Your task to perform on an android device: turn on the 24-hour format for clock Image 0: 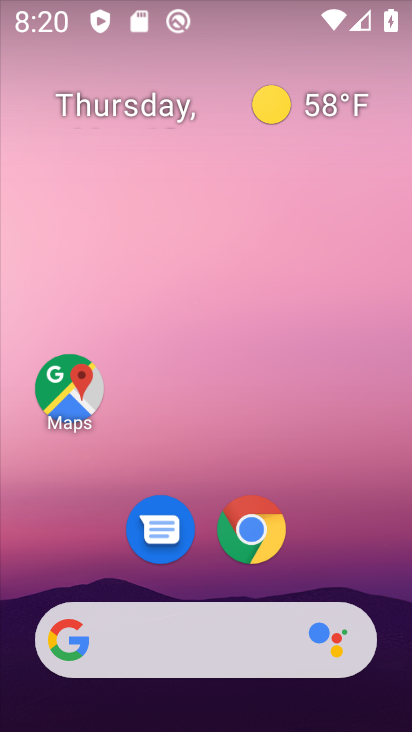
Step 0: drag from (191, 581) to (181, 62)
Your task to perform on an android device: turn on the 24-hour format for clock Image 1: 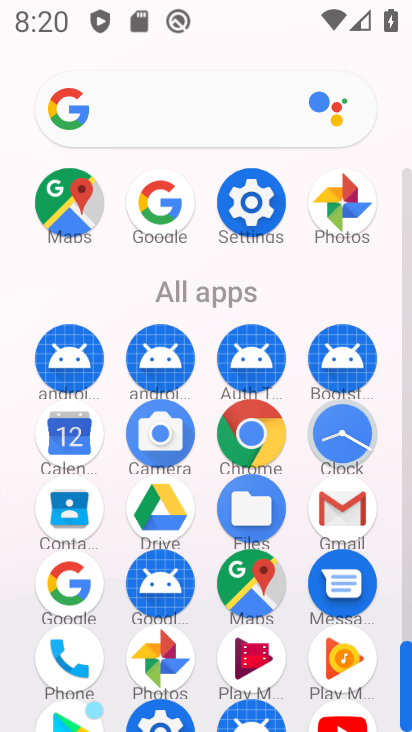
Step 1: click (340, 429)
Your task to perform on an android device: turn on the 24-hour format for clock Image 2: 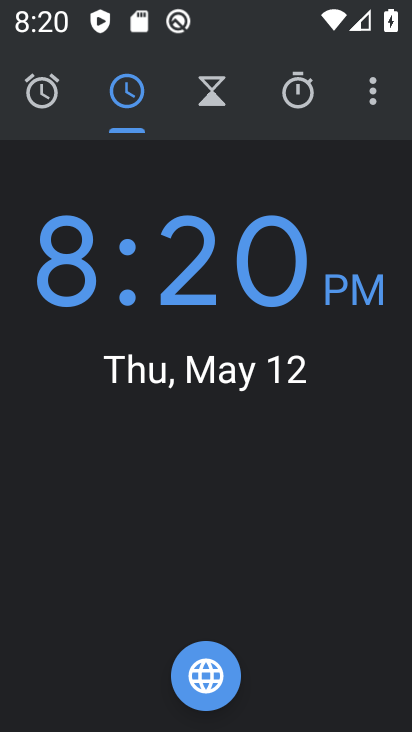
Step 2: click (362, 86)
Your task to perform on an android device: turn on the 24-hour format for clock Image 3: 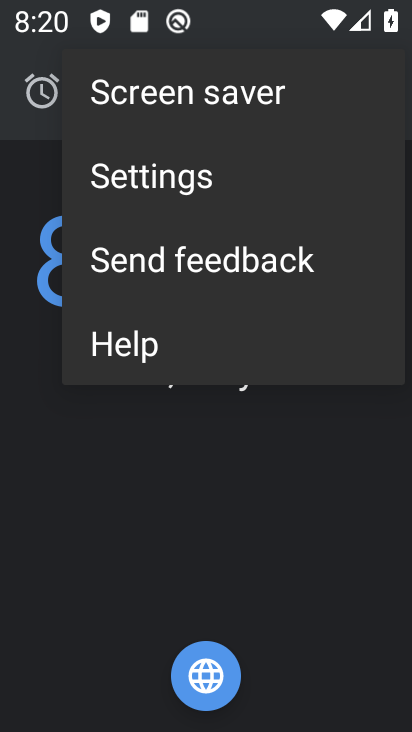
Step 3: click (217, 176)
Your task to perform on an android device: turn on the 24-hour format for clock Image 4: 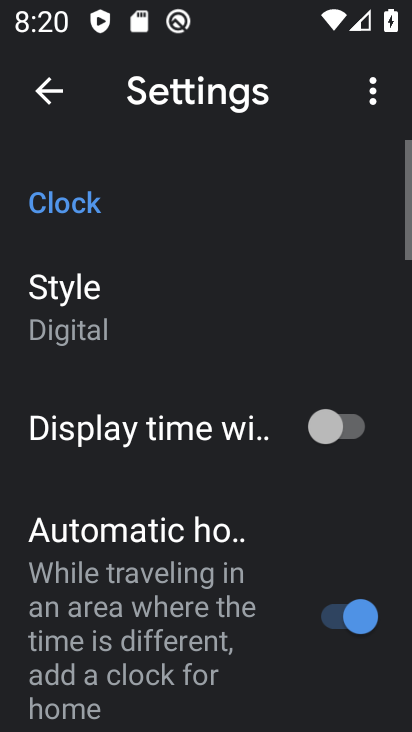
Step 4: drag from (270, 524) to (318, 173)
Your task to perform on an android device: turn on the 24-hour format for clock Image 5: 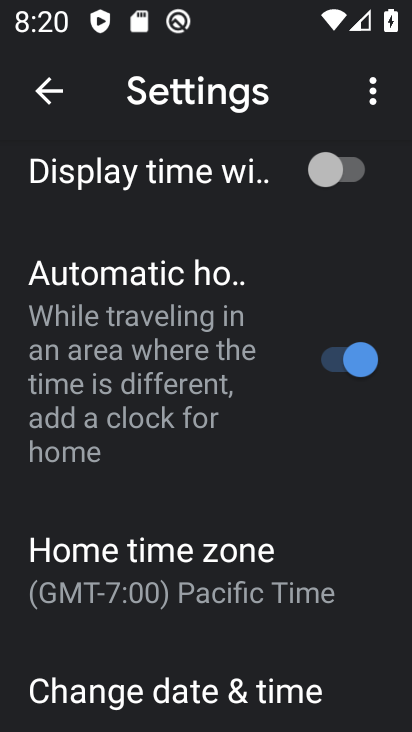
Step 5: click (178, 672)
Your task to perform on an android device: turn on the 24-hour format for clock Image 6: 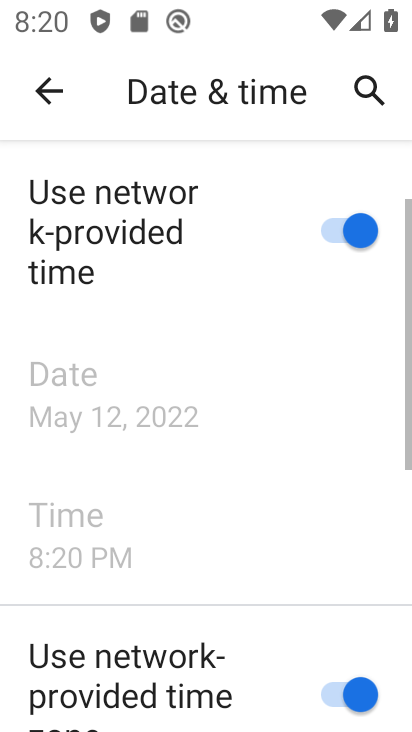
Step 6: drag from (177, 669) to (233, 170)
Your task to perform on an android device: turn on the 24-hour format for clock Image 7: 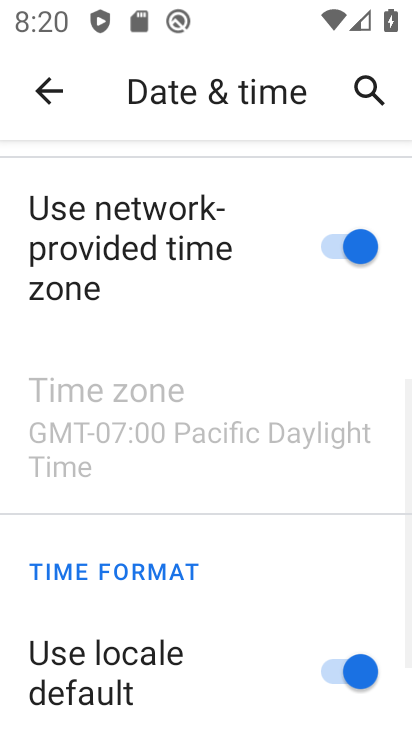
Step 7: drag from (260, 690) to (224, 159)
Your task to perform on an android device: turn on the 24-hour format for clock Image 8: 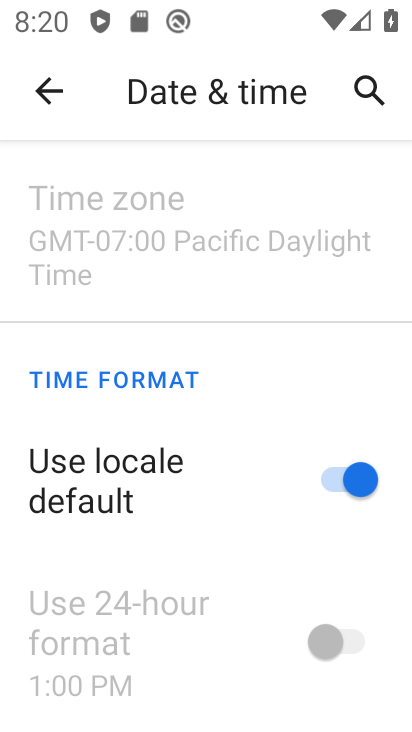
Step 8: click (339, 487)
Your task to perform on an android device: turn on the 24-hour format for clock Image 9: 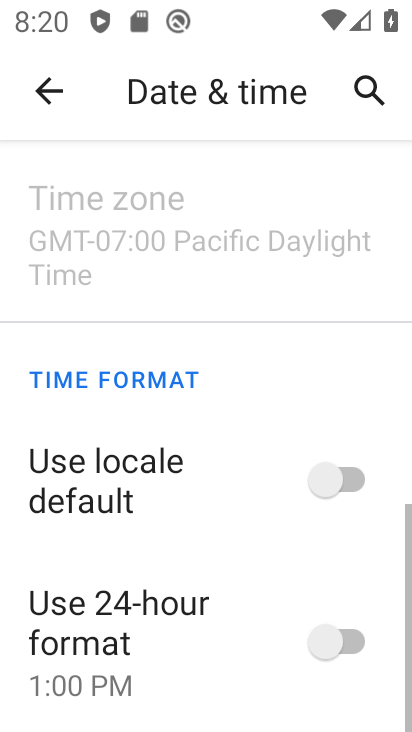
Step 9: click (344, 644)
Your task to perform on an android device: turn on the 24-hour format for clock Image 10: 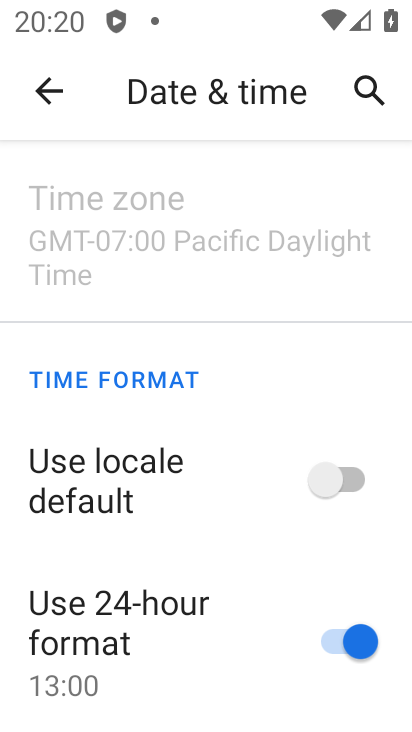
Step 10: task complete